Your task to perform on an android device: Open Yahoo.com Image 0: 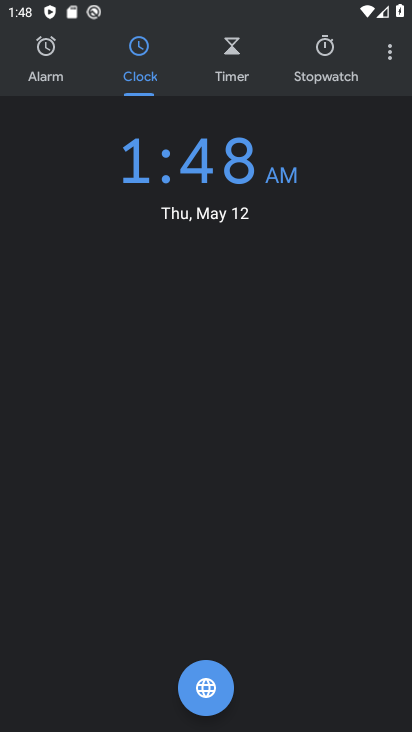
Step 0: press home button
Your task to perform on an android device: Open Yahoo.com Image 1: 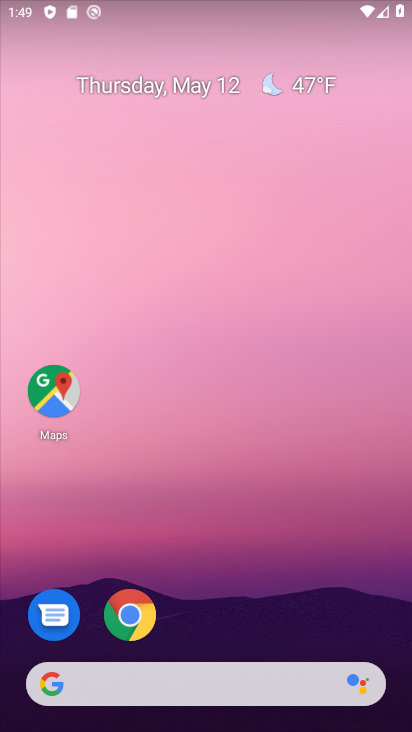
Step 1: click (129, 614)
Your task to perform on an android device: Open Yahoo.com Image 2: 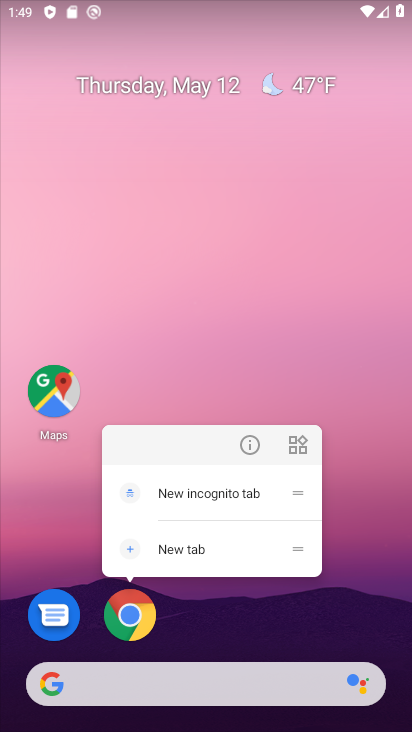
Step 2: click (129, 614)
Your task to perform on an android device: Open Yahoo.com Image 3: 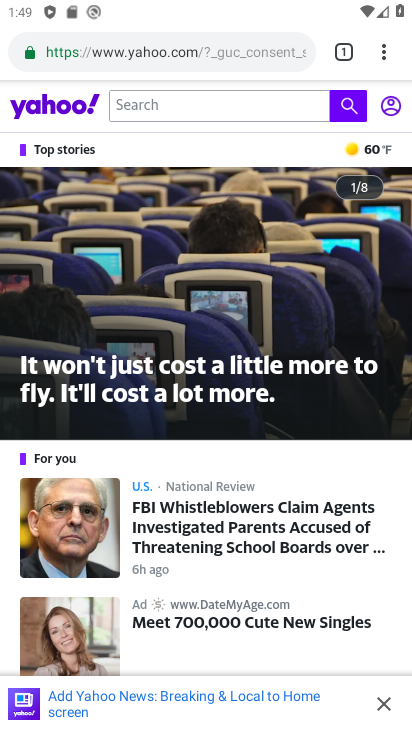
Step 3: task complete